Your task to perform on an android device: turn on data saver in the chrome app Image 0: 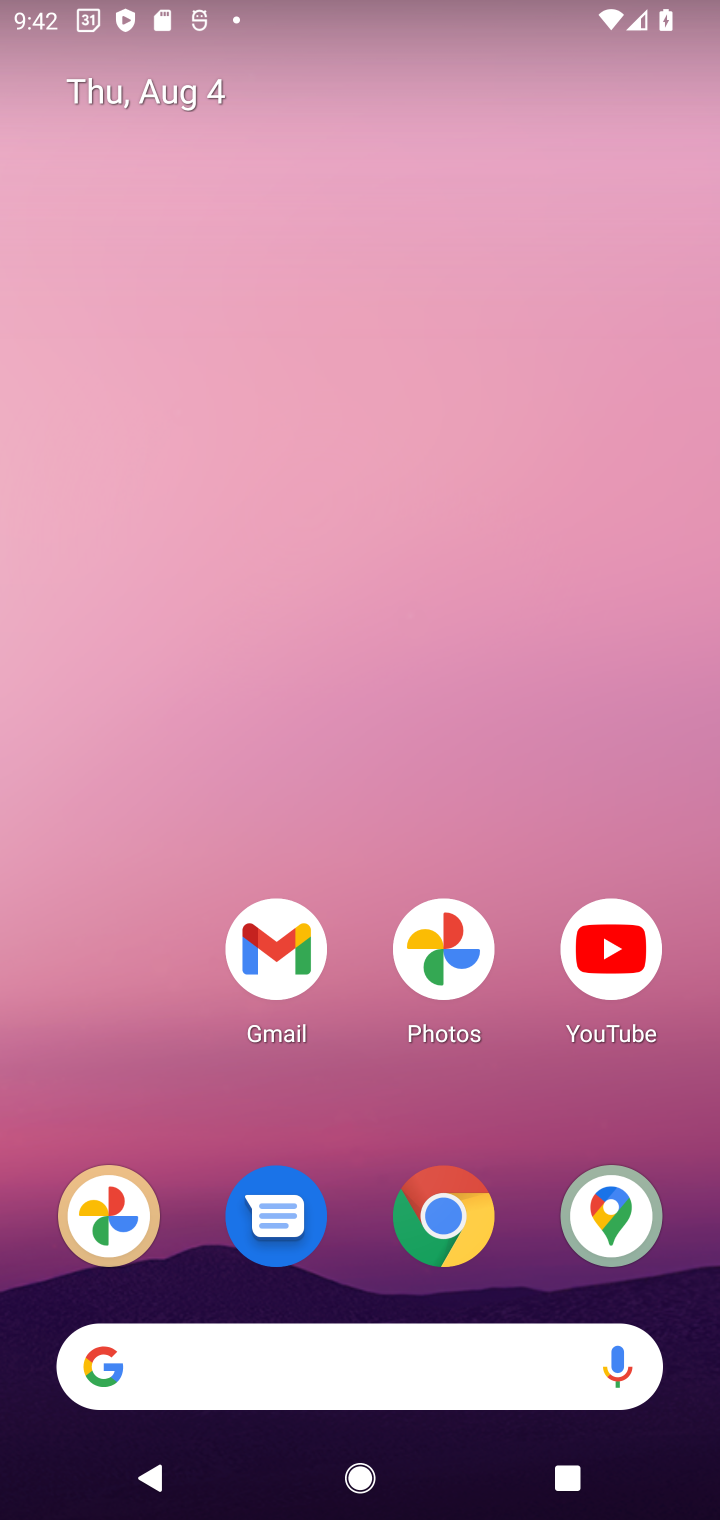
Step 0: click (440, 1223)
Your task to perform on an android device: turn on data saver in the chrome app Image 1: 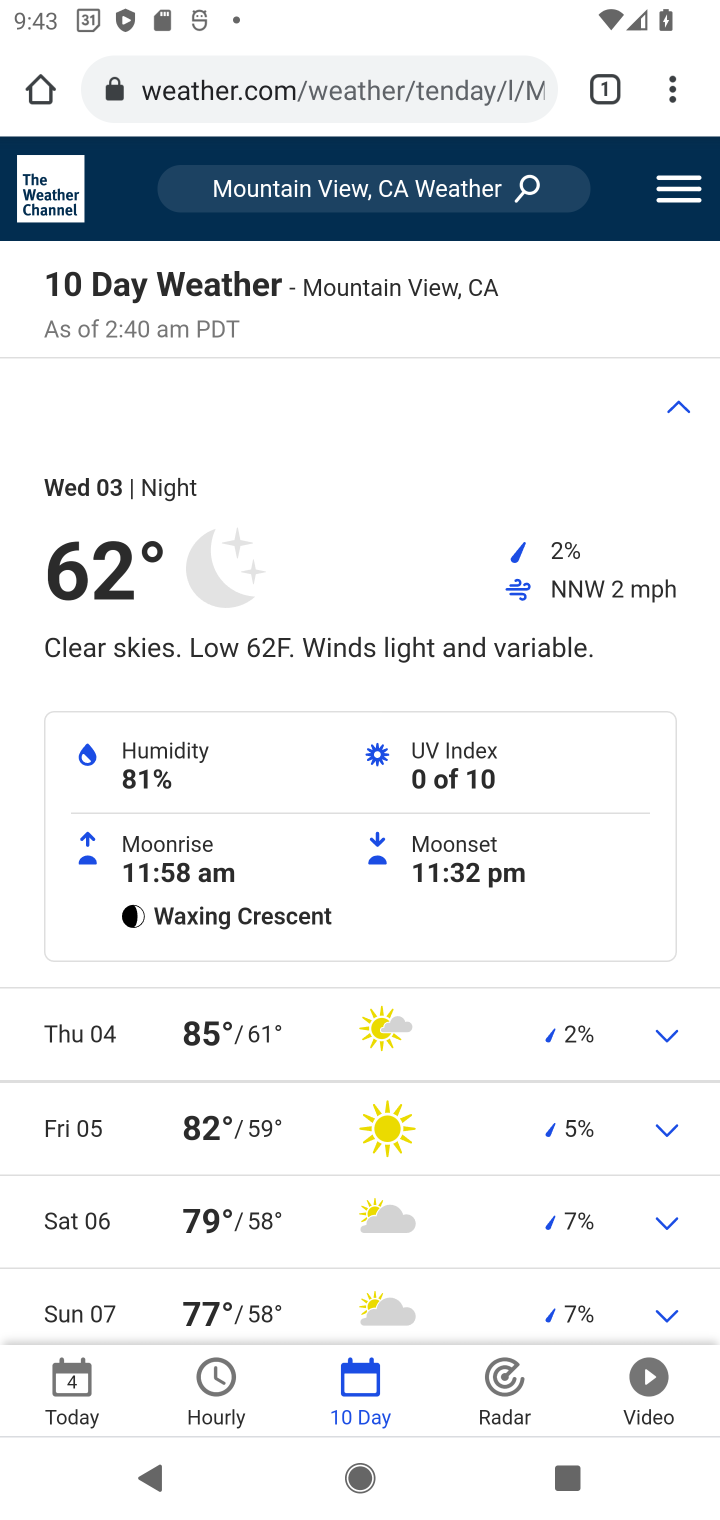
Step 1: click (670, 88)
Your task to perform on an android device: turn on data saver in the chrome app Image 2: 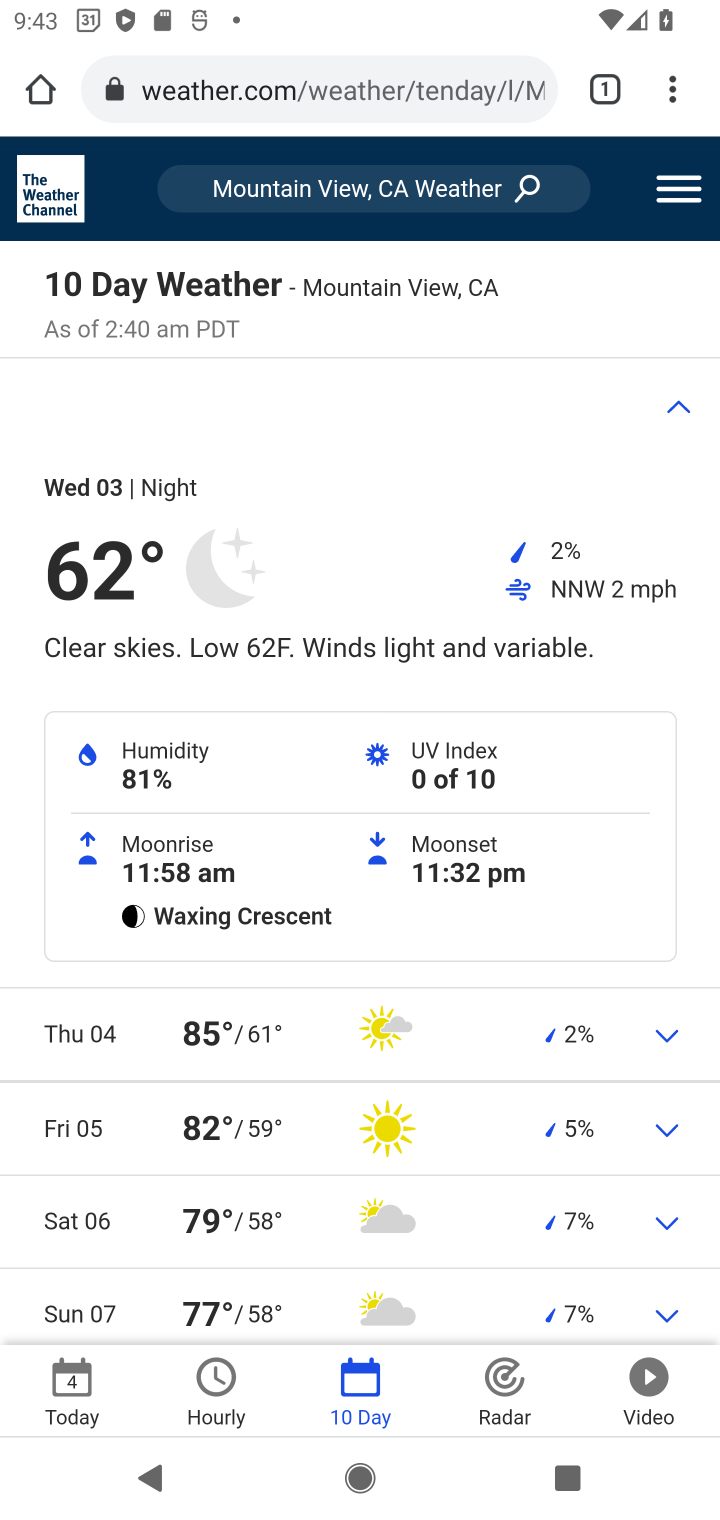
Step 2: click (670, 88)
Your task to perform on an android device: turn on data saver in the chrome app Image 3: 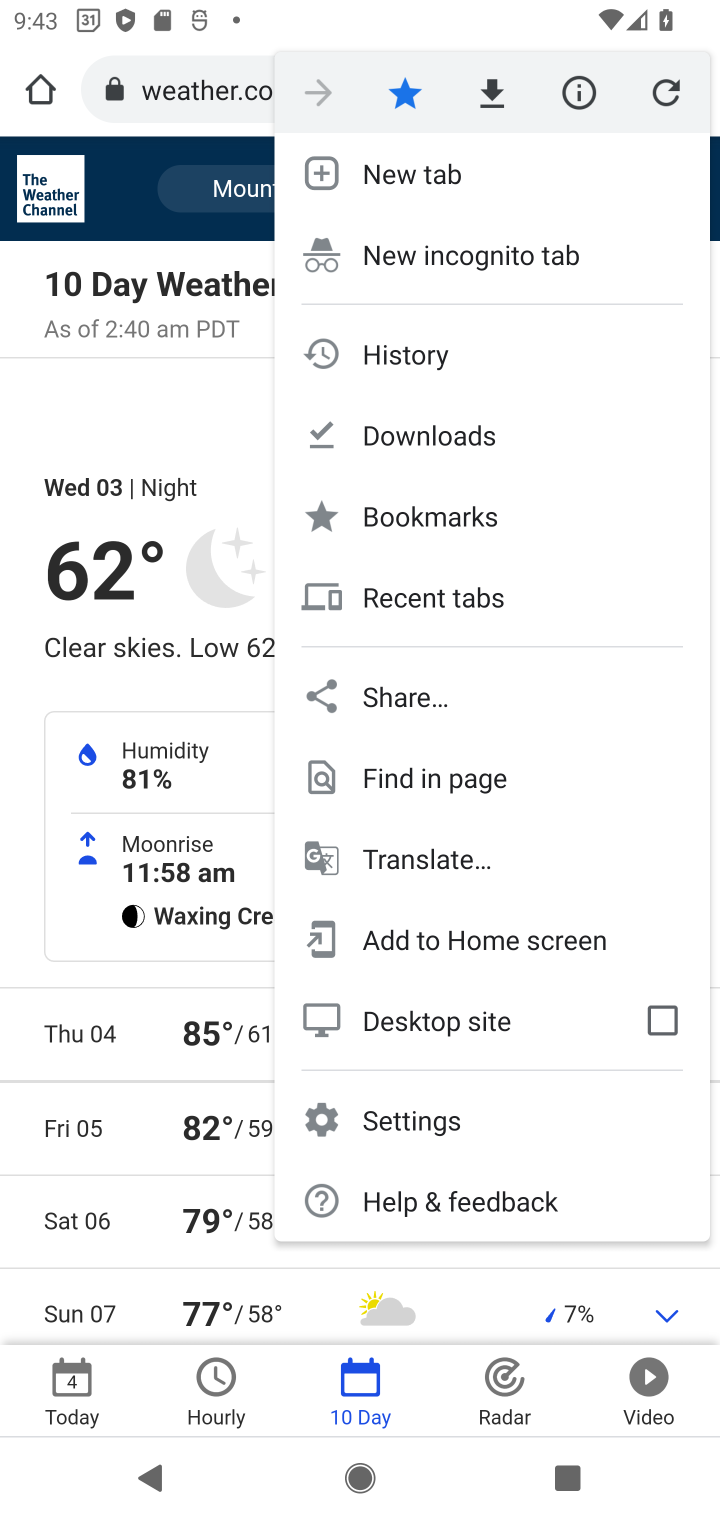
Step 3: click (422, 1113)
Your task to perform on an android device: turn on data saver in the chrome app Image 4: 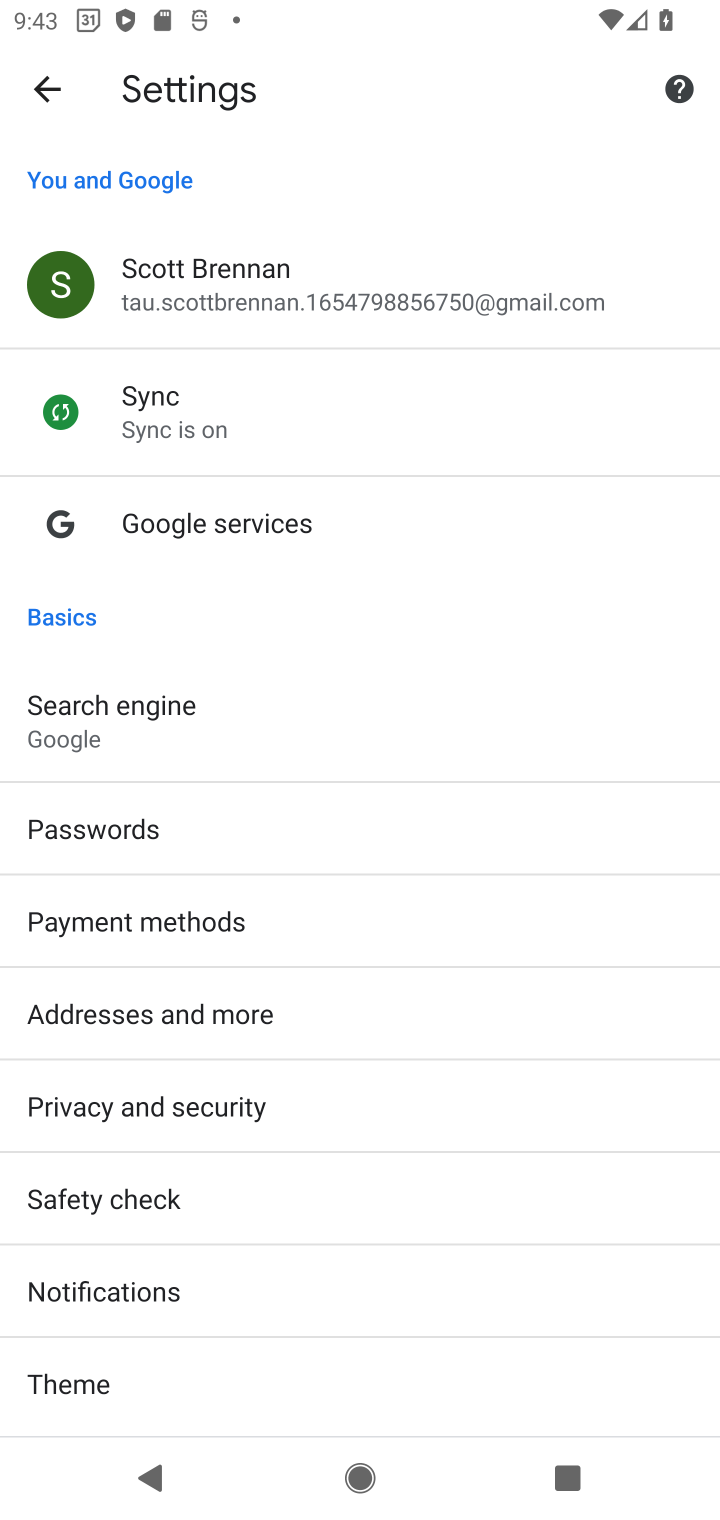
Step 4: drag from (237, 1225) to (211, 1016)
Your task to perform on an android device: turn on data saver in the chrome app Image 5: 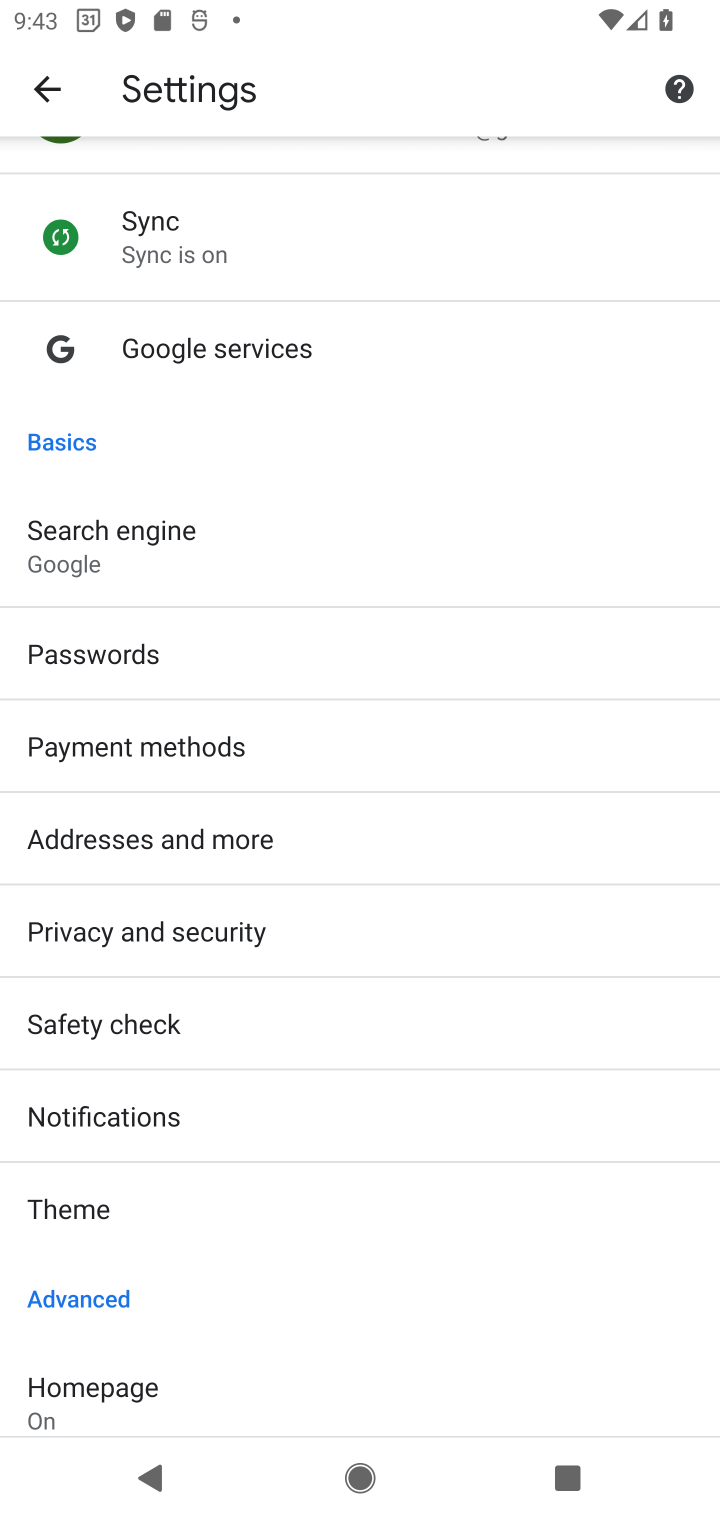
Step 5: drag from (210, 1231) to (225, 1035)
Your task to perform on an android device: turn on data saver in the chrome app Image 6: 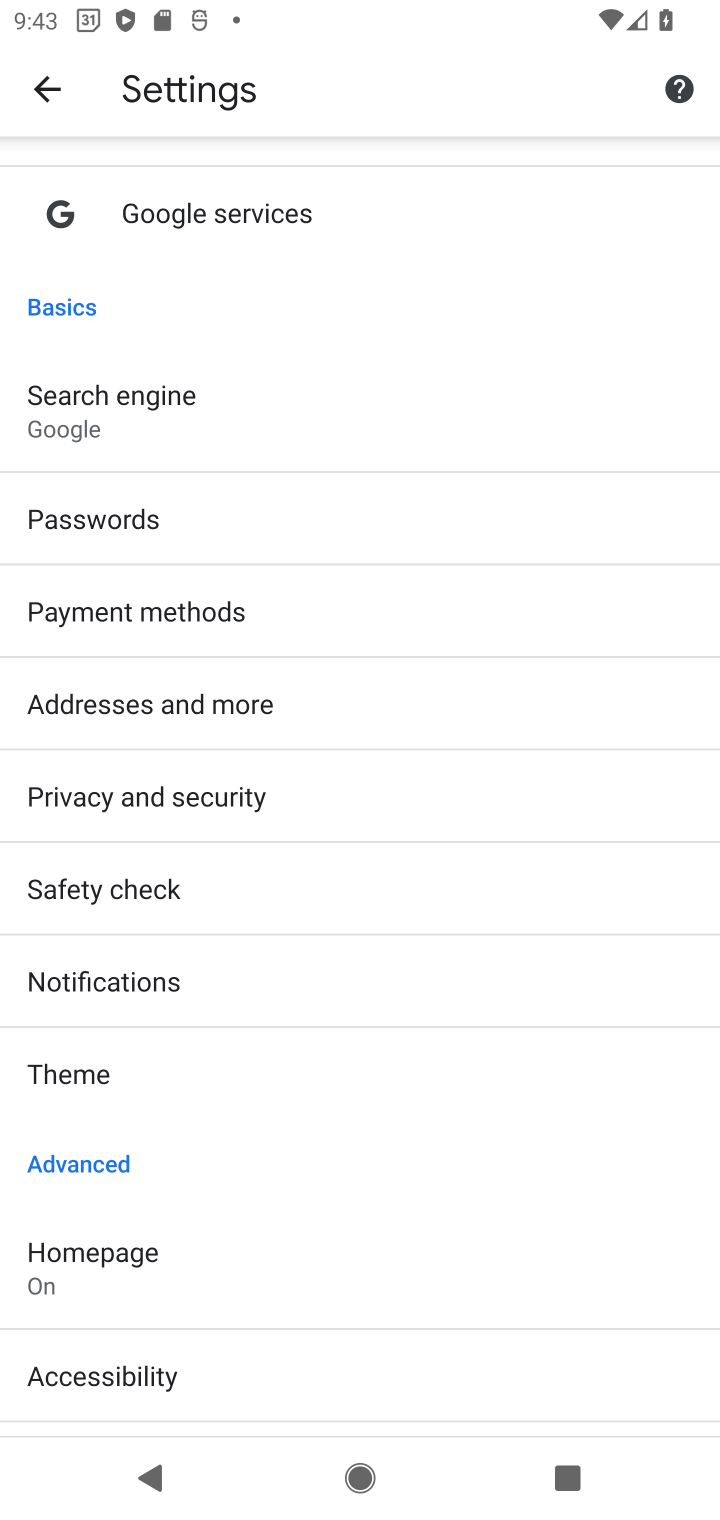
Step 6: drag from (211, 1216) to (366, 914)
Your task to perform on an android device: turn on data saver in the chrome app Image 7: 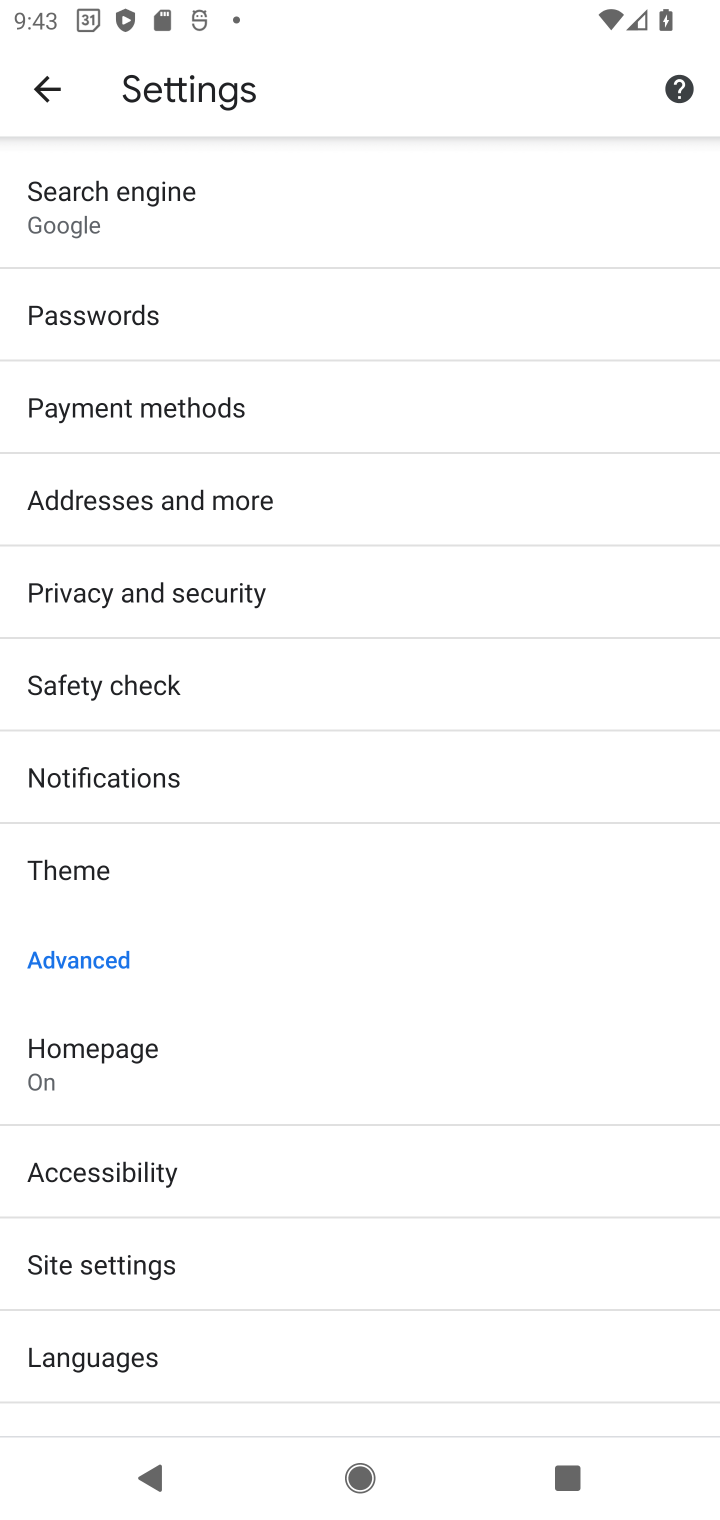
Step 7: drag from (127, 1201) to (241, 1016)
Your task to perform on an android device: turn on data saver in the chrome app Image 8: 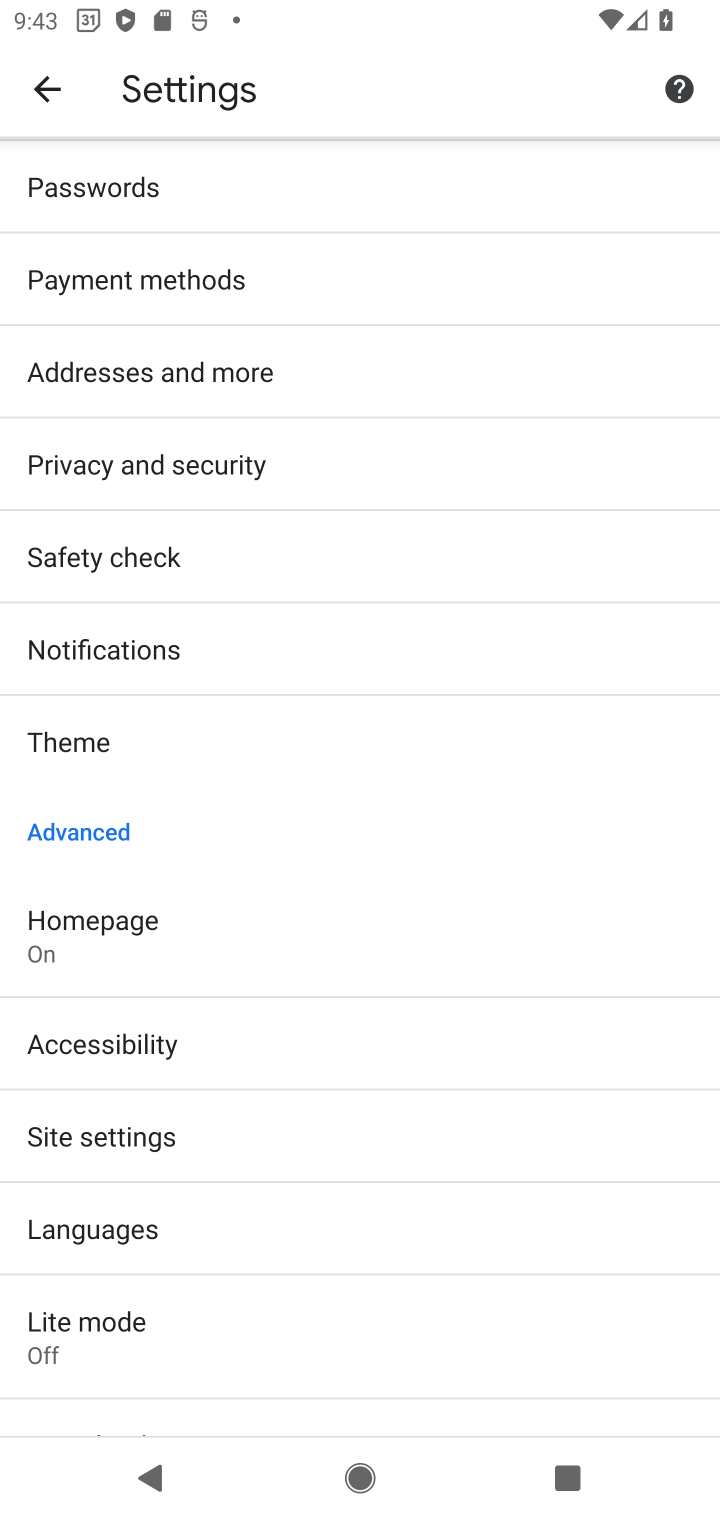
Step 8: click (86, 1346)
Your task to perform on an android device: turn on data saver in the chrome app Image 9: 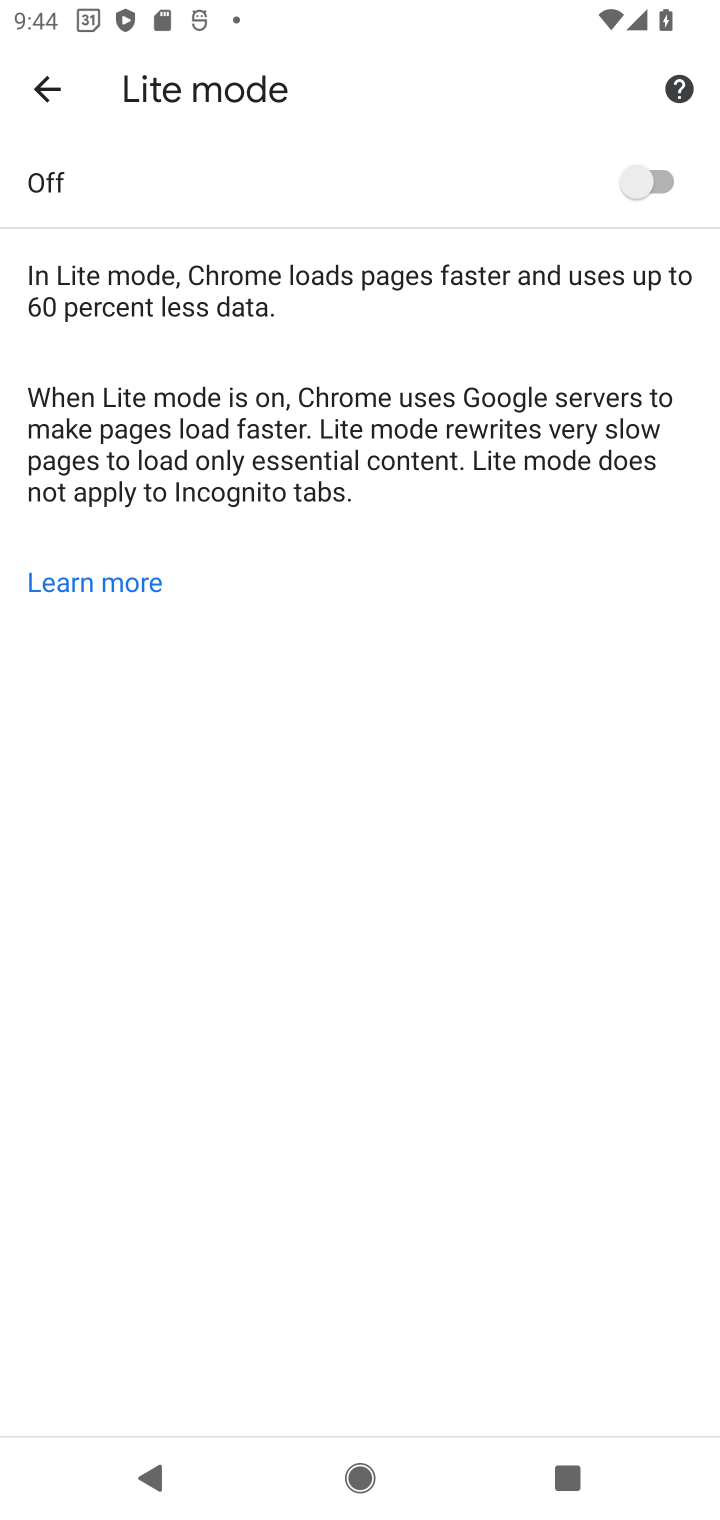
Step 9: click (631, 194)
Your task to perform on an android device: turn on data saver in the chrome app Image 10: 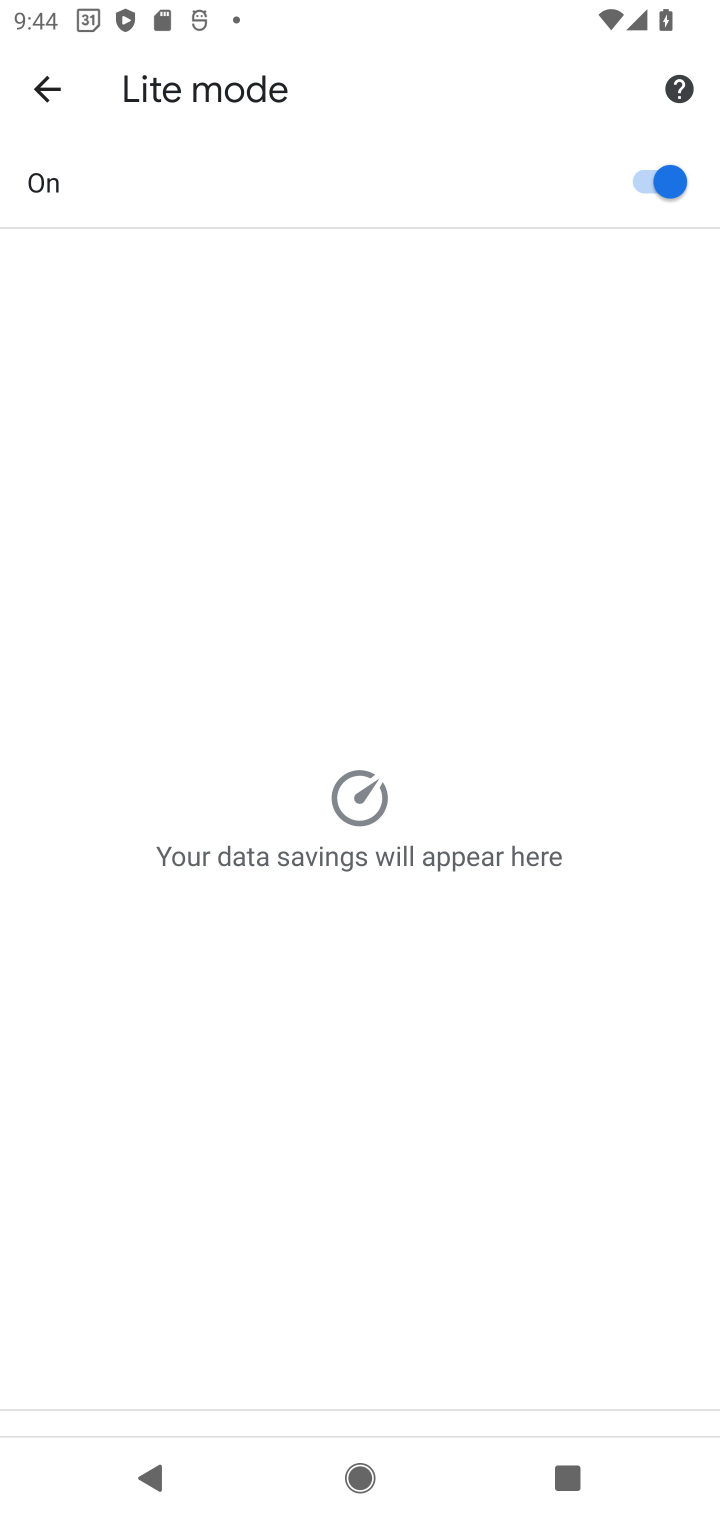
Step 10: task complete